Your task to perform on an android device: open a new tab in the chrome app Image 0: 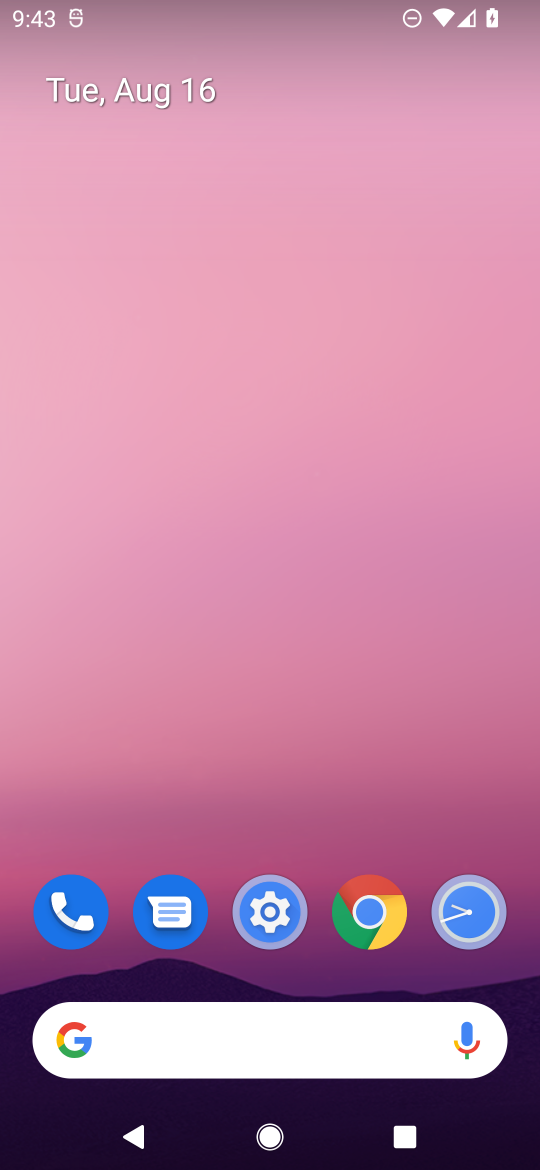
Step 0: click (363, 926)
Your task to perform on an android device: open a new tab in the chrome app Image 1: 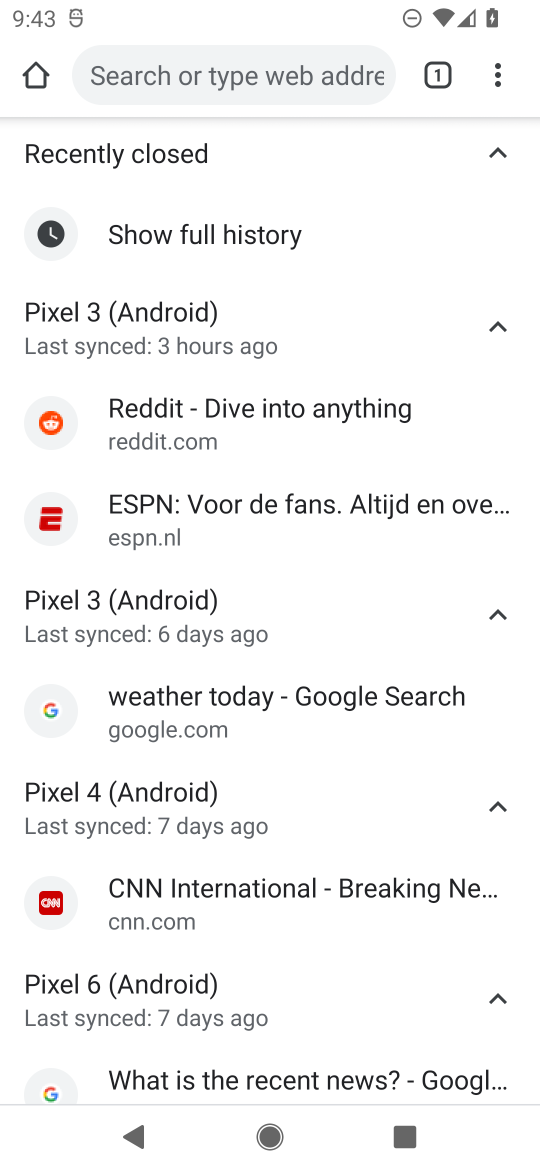
Step 1: click (426, 80)
Your task to perform on an android device: open a new tab in the chrome app Image 2: 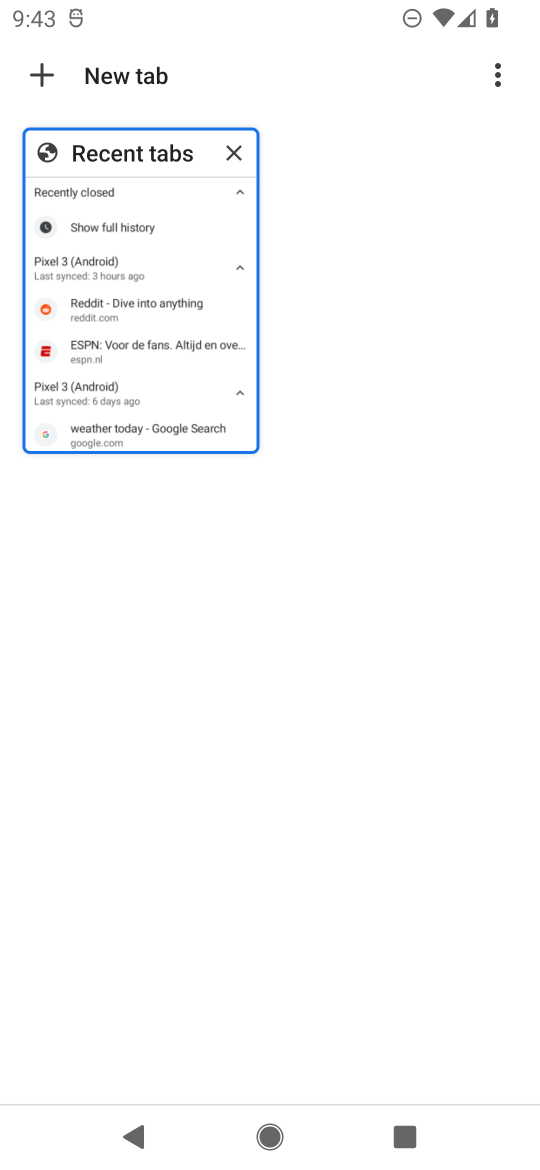
Step 2: click (126, 67)
Your task to perform on an android device: open a new tab in the chrome app Image 3: 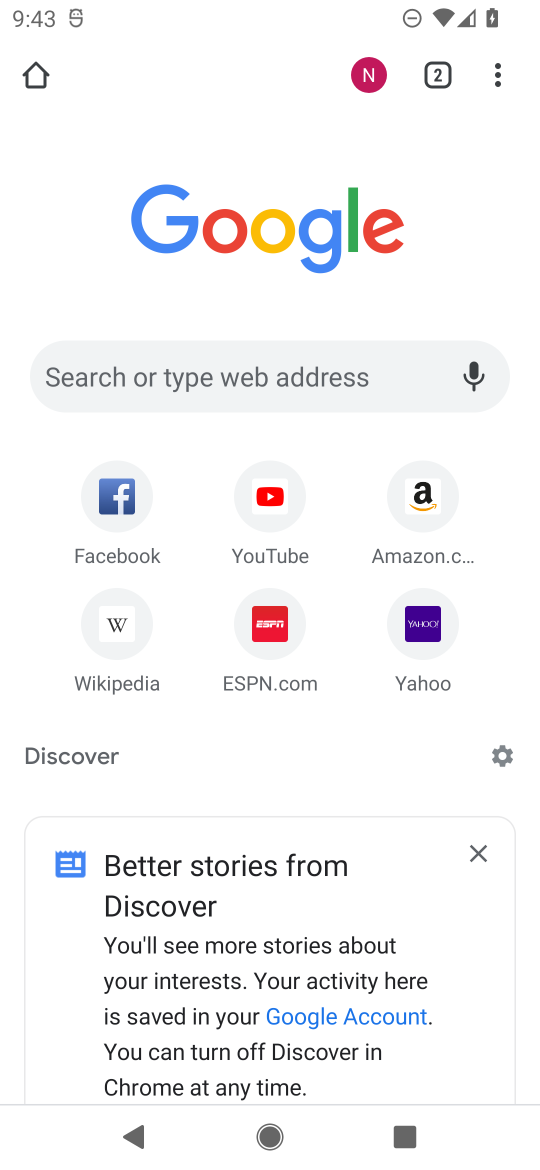
Step 3: task complete